Your task to perform on an android device: What's the weather going to be tomorrow? Image 0: 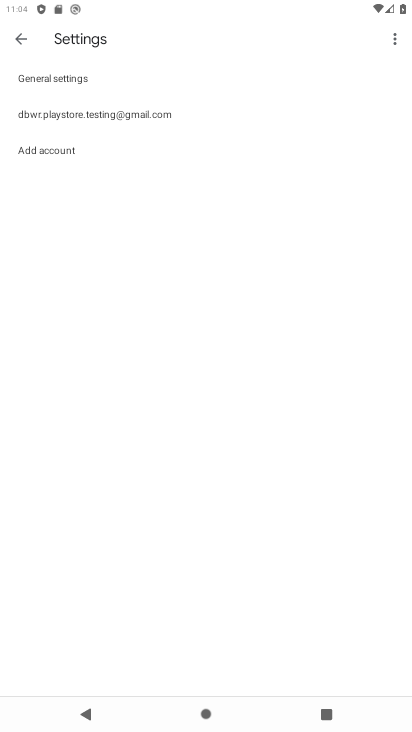
Step 0: press home button
Your task to perform on an android device: What's the weather going to be tomorrow? Image 1: 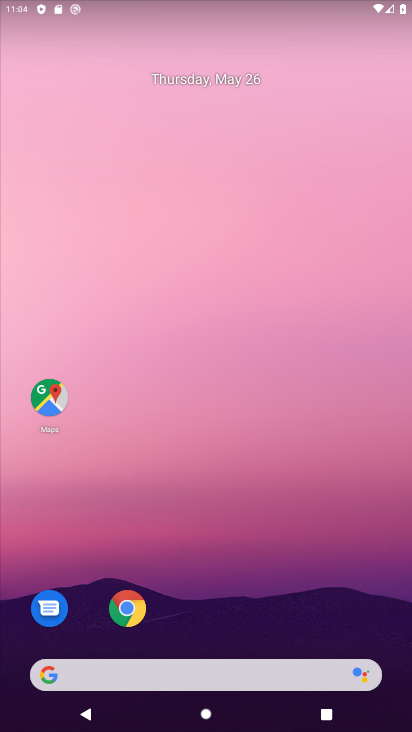
Step 1: click (207, 666)
Your task to perform on an android device: What's the weather going to be tomorrow? Image 2: 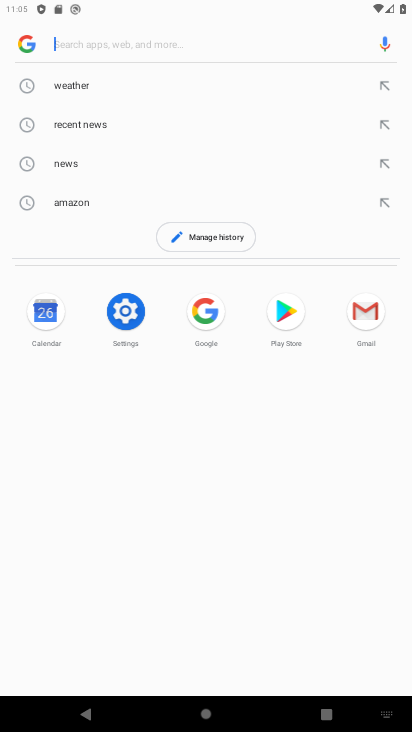
Step 2: click (88, 82)
Your task to perform on an android device: What's the weather going to be tomorrow? Image 3: 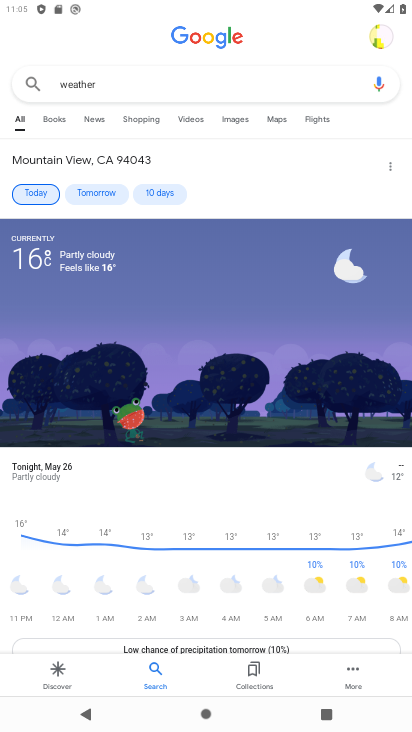
Step 3: click (94, 194)
Your task to perform on an android device: What's the weather going to be tomorrow? Image 4: 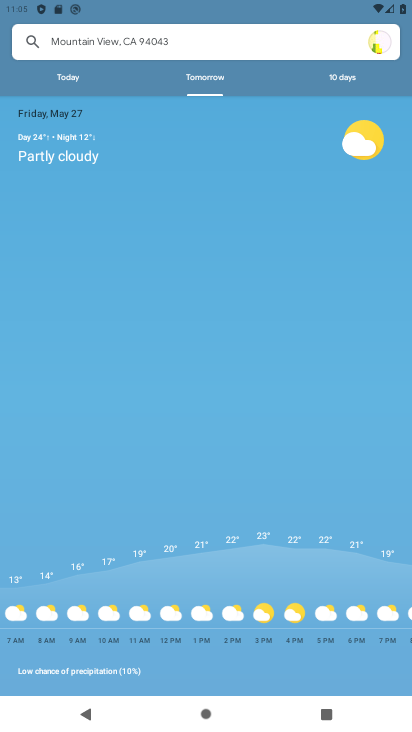
Step 4: task complete